Your task to perform on an android device: remove spam from my inbox in the gmail app Image 0: 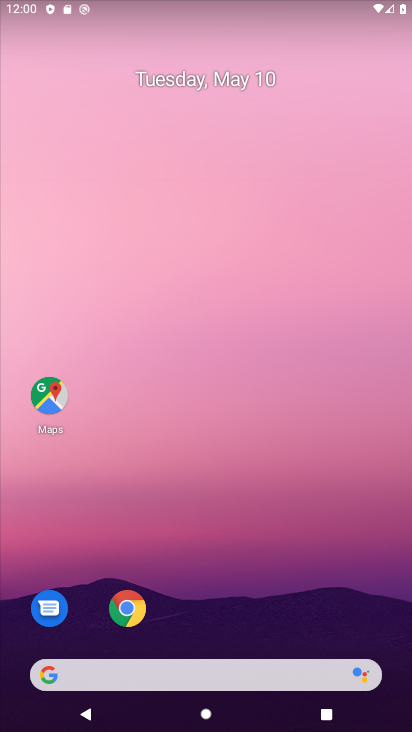
Step 0: drag from (254, 545) to (212, 3)
Your task to perform on an android device: remove spam from my inbox in the gmail app Image 1: 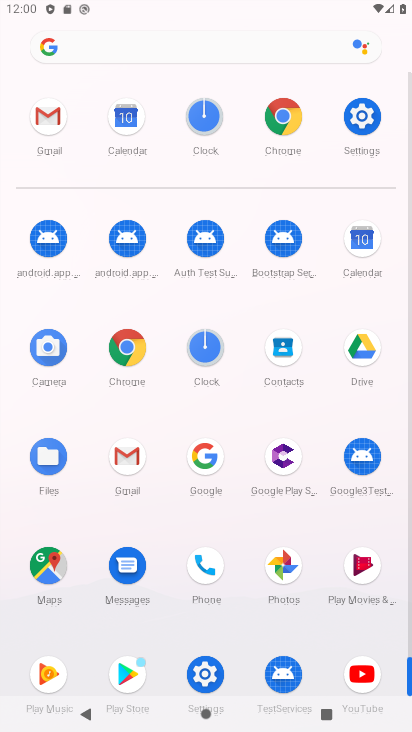
Step 1: drag from (14, 536) to (18, 206)
Your task to perform on an android device: remove spam from my inbox in the gmail app Image 2: 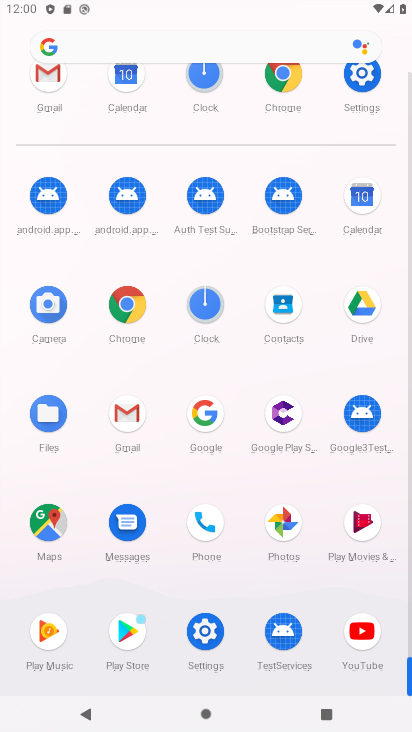
Step 2: click (122, 409)
Your task to perform on an android device: remove spam from my inbox in the gmail app Image 3: 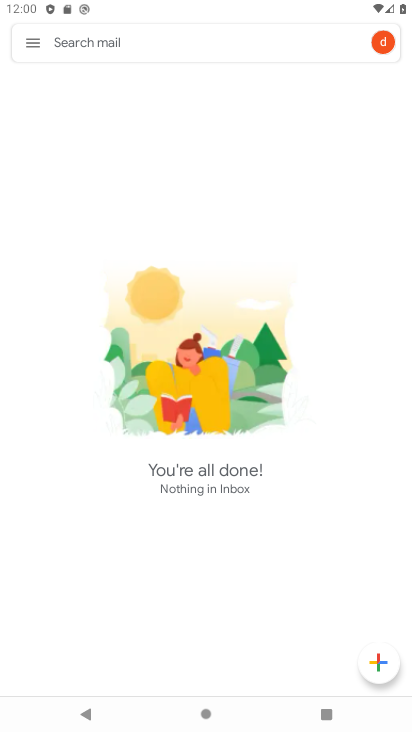
Step 3: click (32, 37)
Your task to perform on an android device: remove spam from my inbox in the gmail app Image 4: 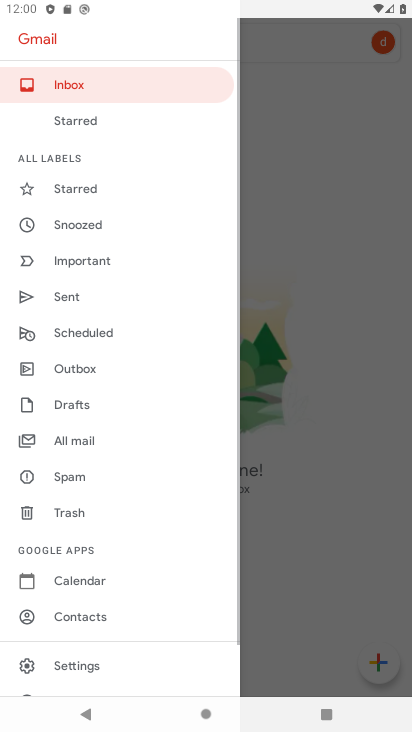
Step 4: drag from (134, 542) to (134, 117)
Your task to perform on an android device: remove spam from my inbox in the gmail app Image 5: 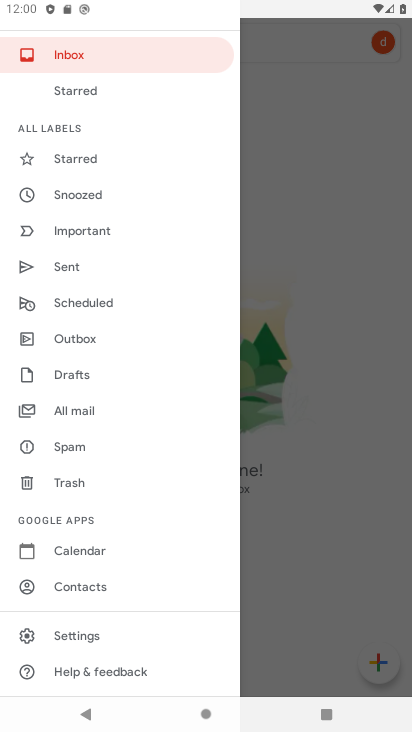
Step 5: click (79, 438)
Your task to perform on an android device: remove spam from my inbox in the gmail app Image 6: 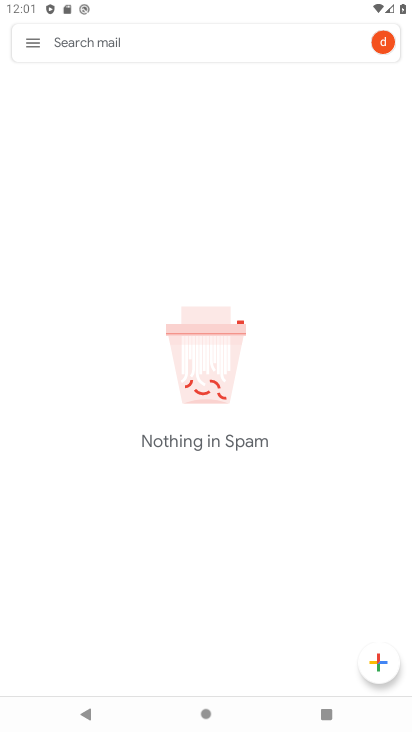
Step 6: task complete